Your task to perform on an android device: Open maps Image 0: 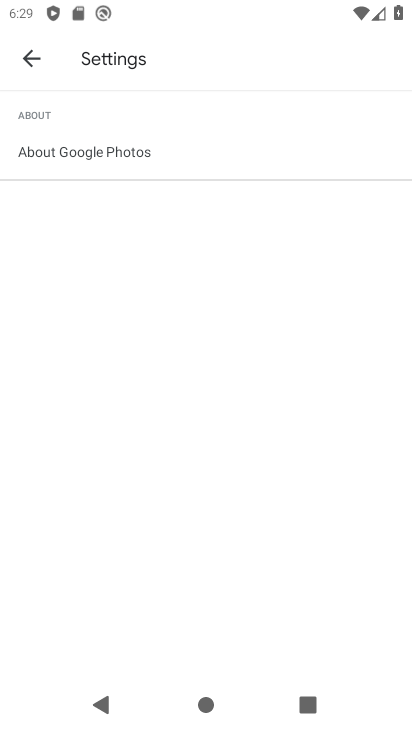
Step 0: press home button
Your task to perform on an android device: Open maps Image 1: 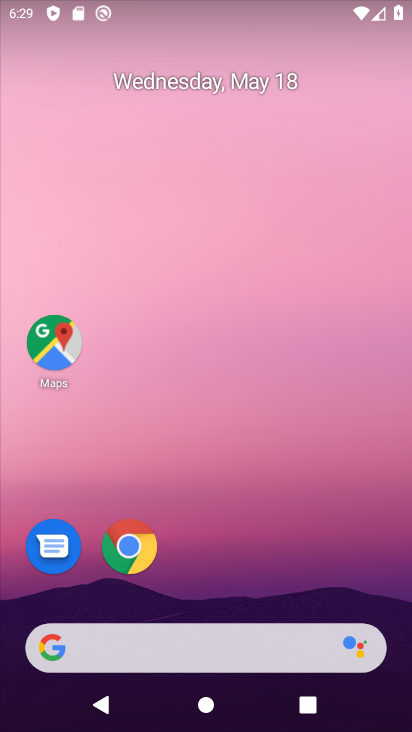
Step 1: drag from (404, 626) to (246, 157)
Your task to perform on an android device: Open maps Image 2: 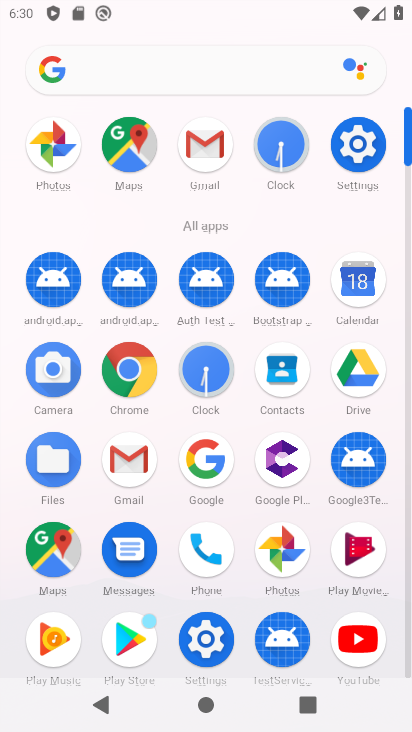
Step 2: click (246, 157)
Your task to perform on an android device: Open maps Image 3: 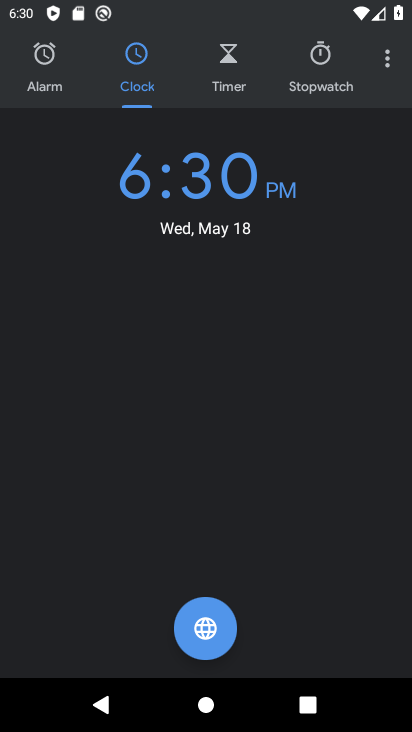
Step 3: press home button
Your task to perform on an android device: Open maps Image 4: 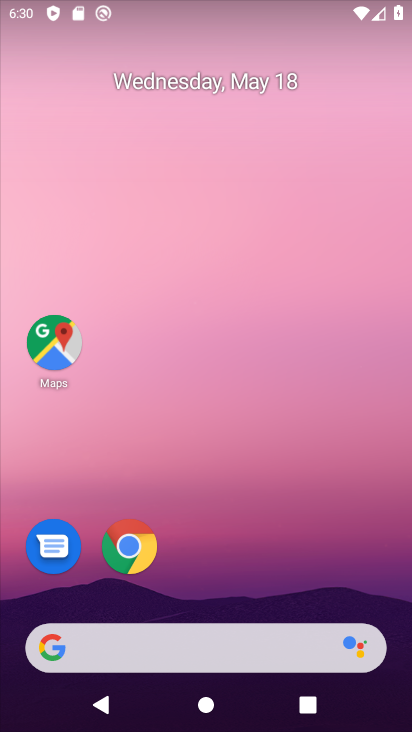
Step 4: click (55, 337)
Your task to perform on an android device: Open maps Image 5: 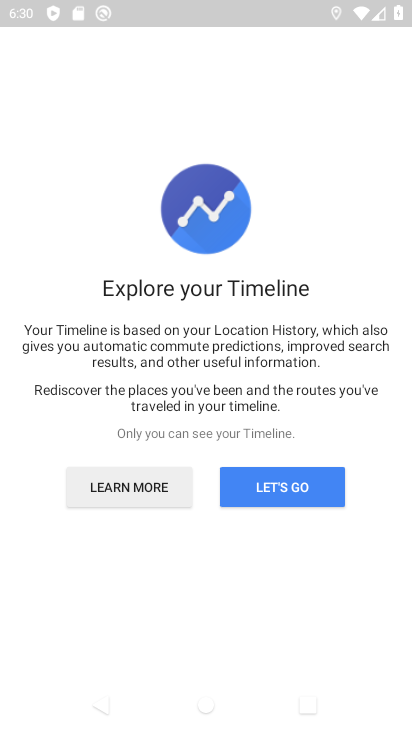
Step 5: task complete